Your task to perform on an android device: Search for "usb-c" on newegg, select the first entry, add it to the cart, then select checkout. Image 0: 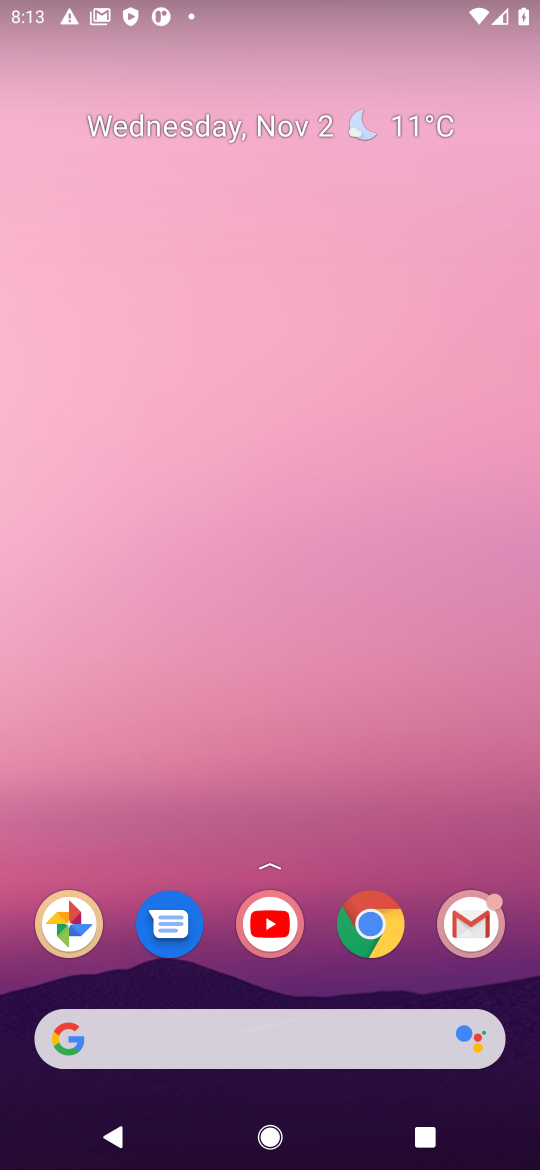
Step 0: click (367, 918)
Your task to perform on an android device: Search for "usb-c" on newegg, select the first entry, add it to the cart, then select checkout. Image 1: 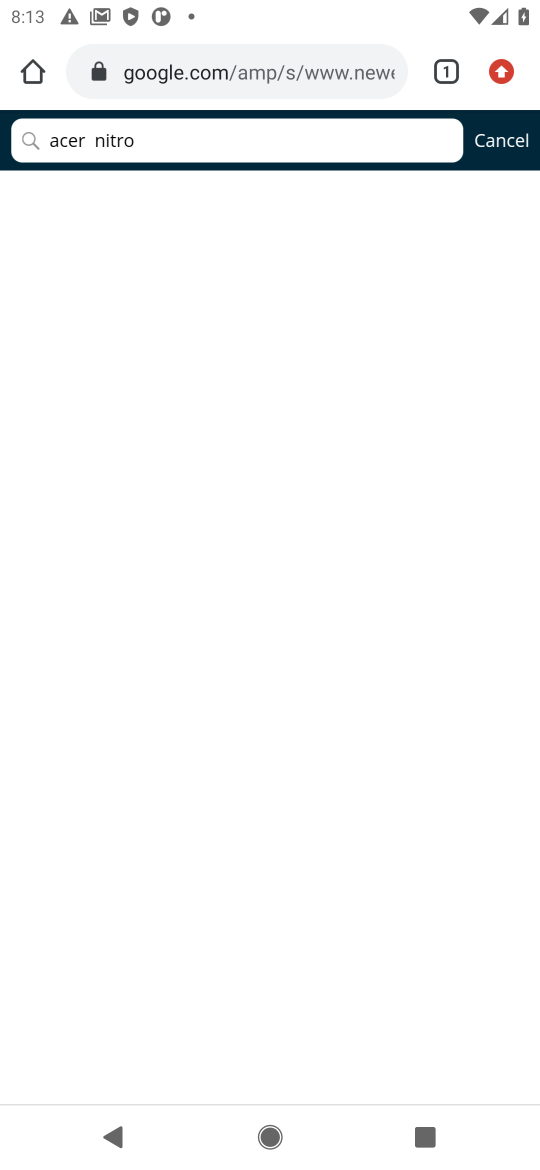
Step 1: click (194, 117)
Your task to perform on an android device: Search for "usb-c" on newegg, select the first entry, add it to the cart, then select checkout. Image 2: 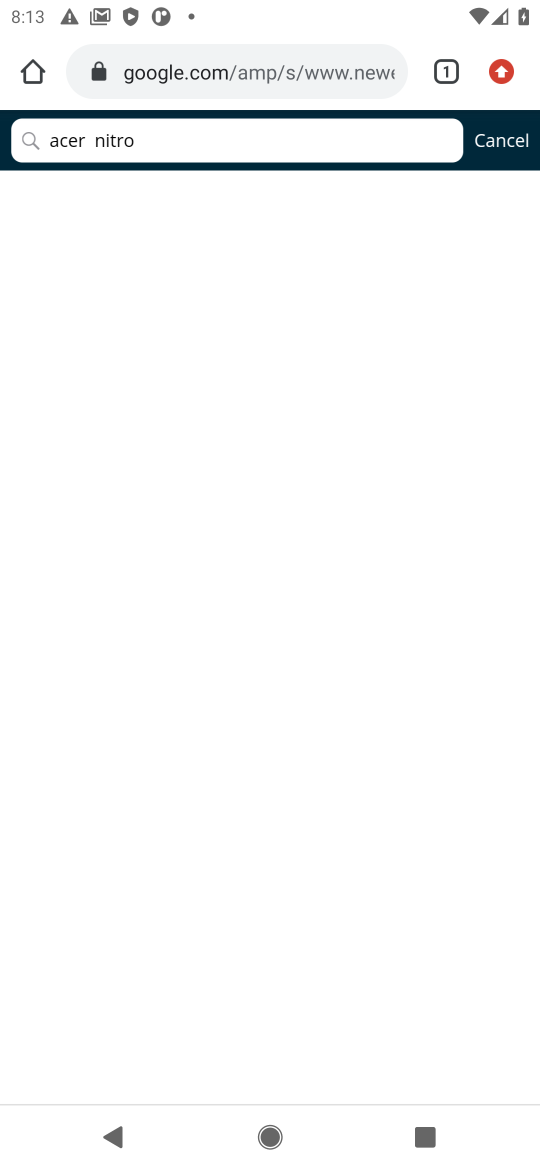
Step 2: click (202, 67)
Your task to perform on an android device: Search for "usb-c" on newegg, select the first entry, add it to the cart, then select checkout. Image 3: 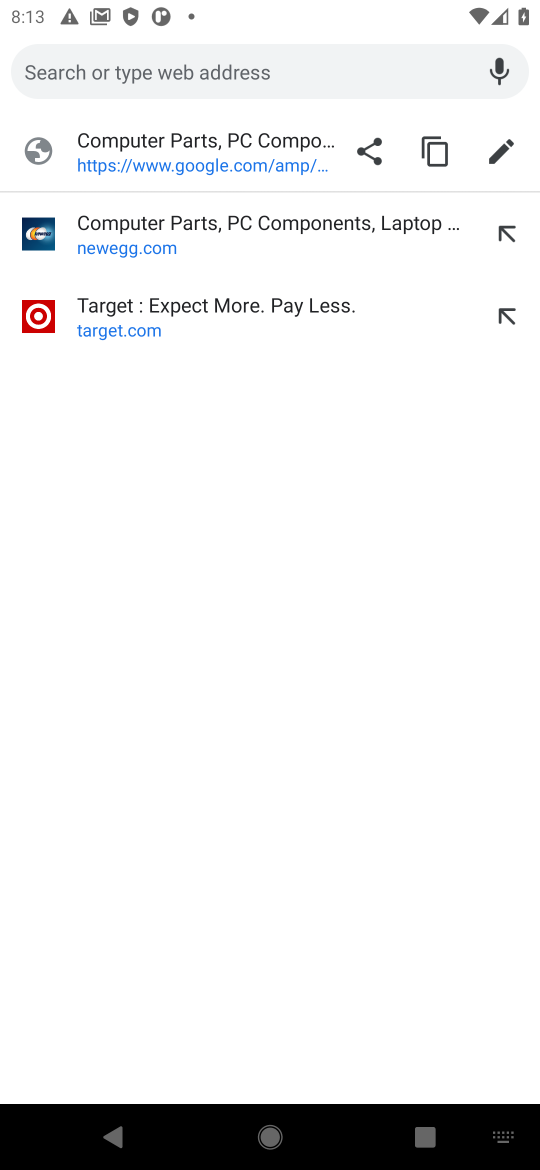
Step 3: type "newegg"
Your task to perform on an android device: Search for "usb-c" on newegg, select the first entry, add it to the cart, then select checkout. Image 4: 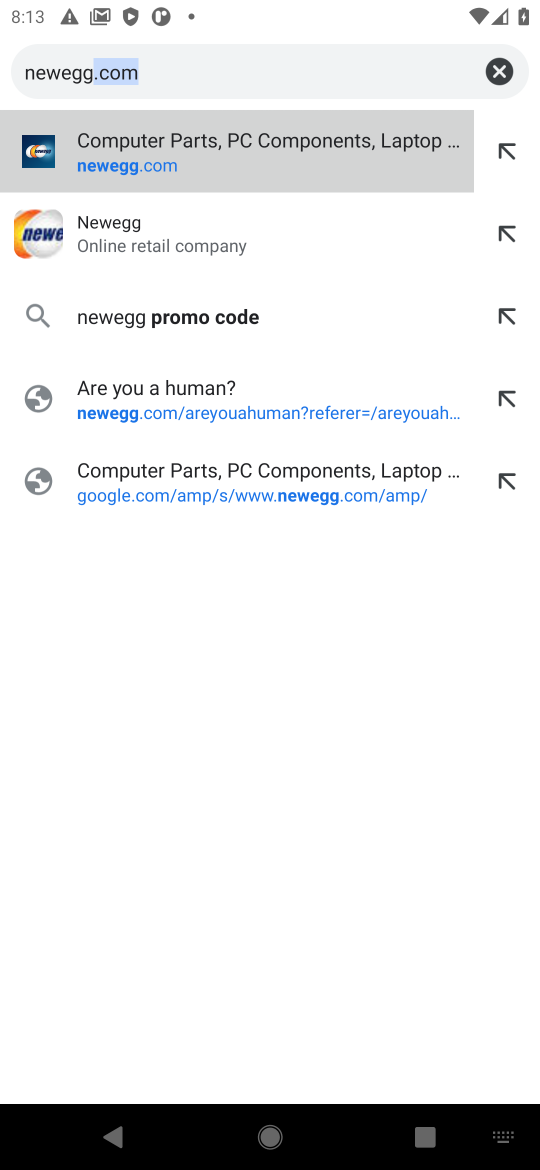
Step 4: click (87, 213)
Your task to perform on an android device: Search for "usb-c" on newegg, select the first entry, add it to the cart, then select checkout. Image 5: 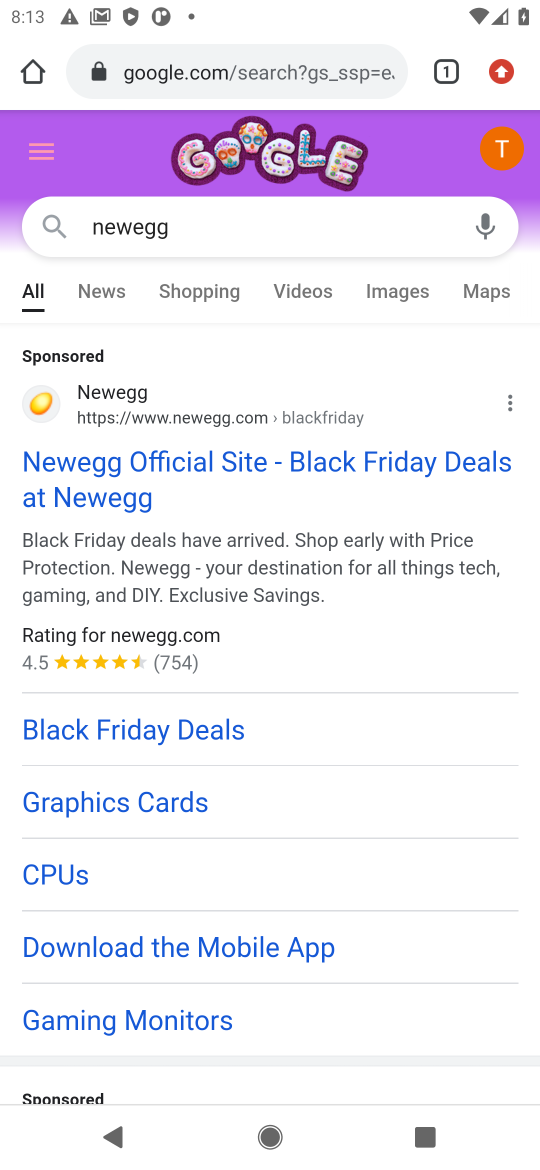
Step 5: drag from (157, 682) to (193, 164)
Your task to perform on an android device: Search for "usb-c" on newegg, select the first entry, add it to the cart, then select checkout. Image 6: 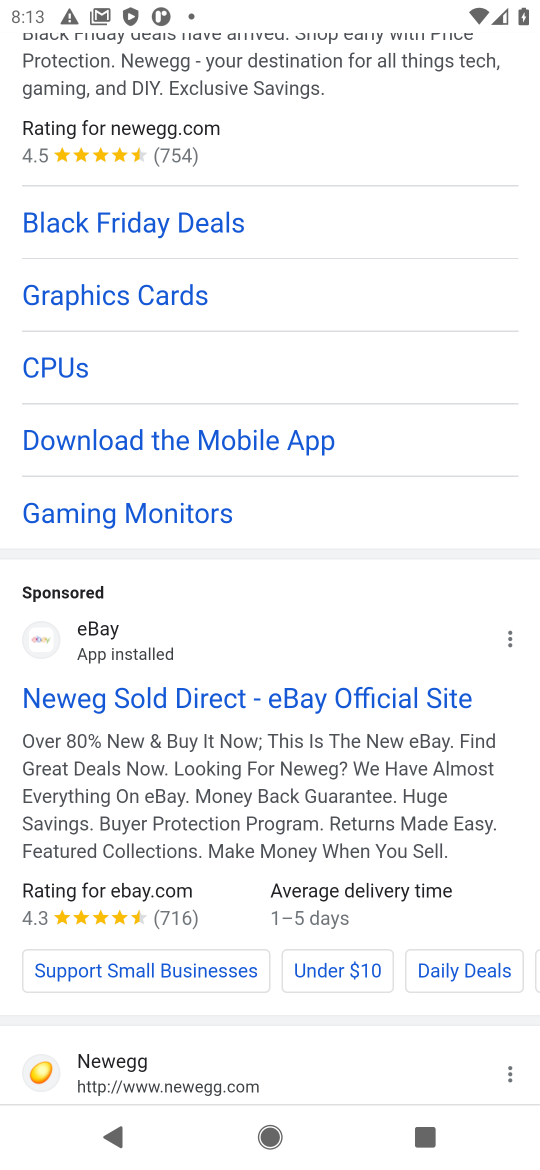
Step 6: drag from (100, 907) to (225, 332)
Your task to perform on an android device: Search for "usb-c" on newegg, select the first entry, add it to the cart, then select checkout. Image 7: 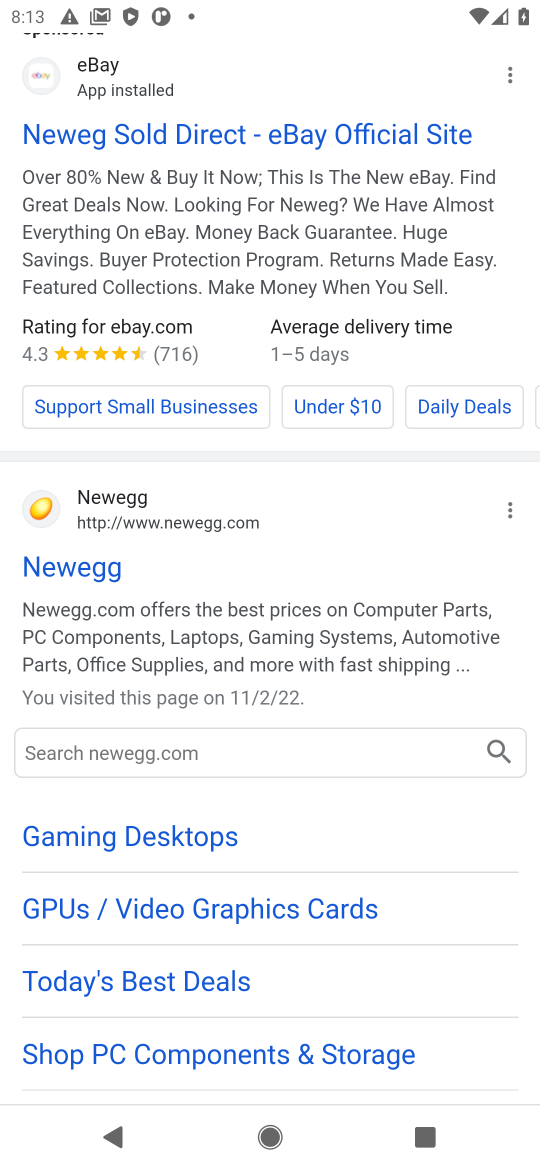
Step 7: click (52, 567)
Your task to perform on an android device: Search for "usb-c" on newegg, select the first entry, add it to the cart, then select checkout. Image 8: 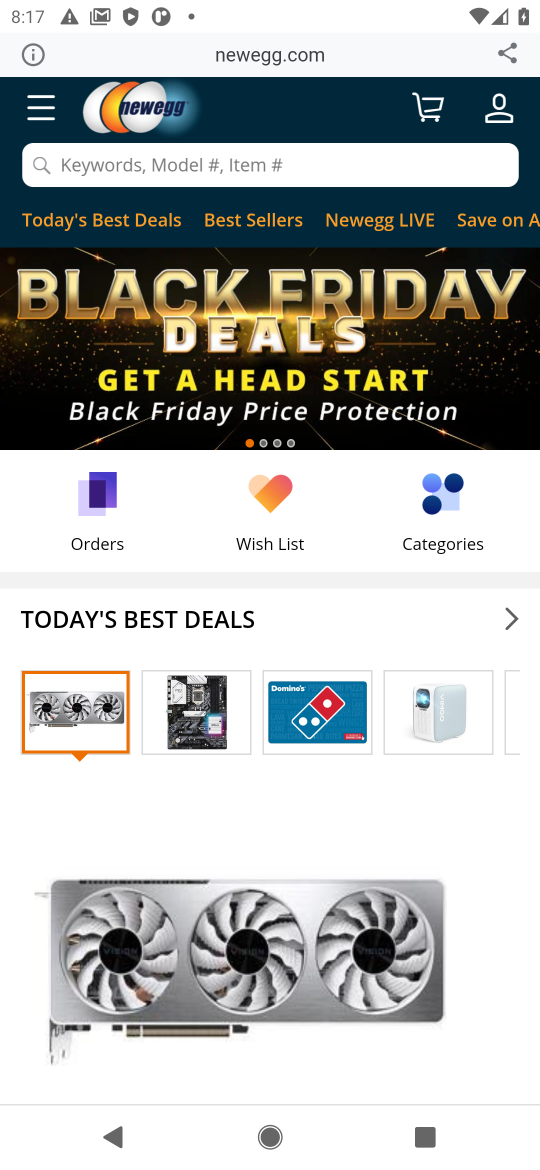
Step 8: click (222, 170)
Your task to perform on an android device: Search for "usb-c" on newegg, select the first entry, add it to the cart, then select checkout. Image 9: 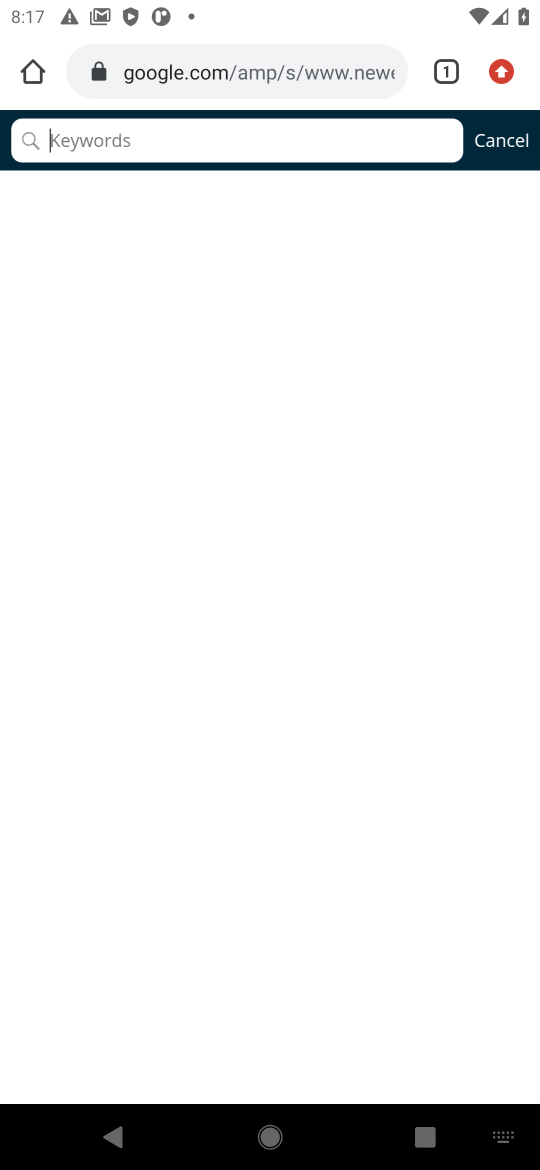
Step 9: type "usb -c "
Your task to perform on an android device: Search for "usb-c" on newegg, select the first entry, add it to the cart, then select checkout. Image 10: 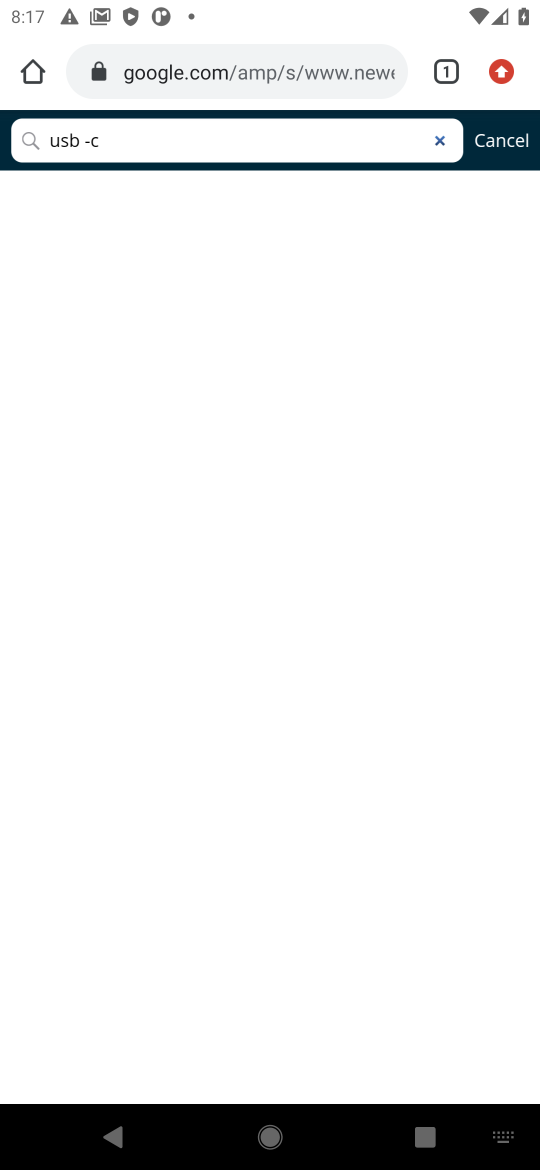
Step 10: click (127, 128)
Your task to perform on an android device: Search for "usb-c" on newegg, select the first entry, add it to the cart, then select checkout. Image 11: 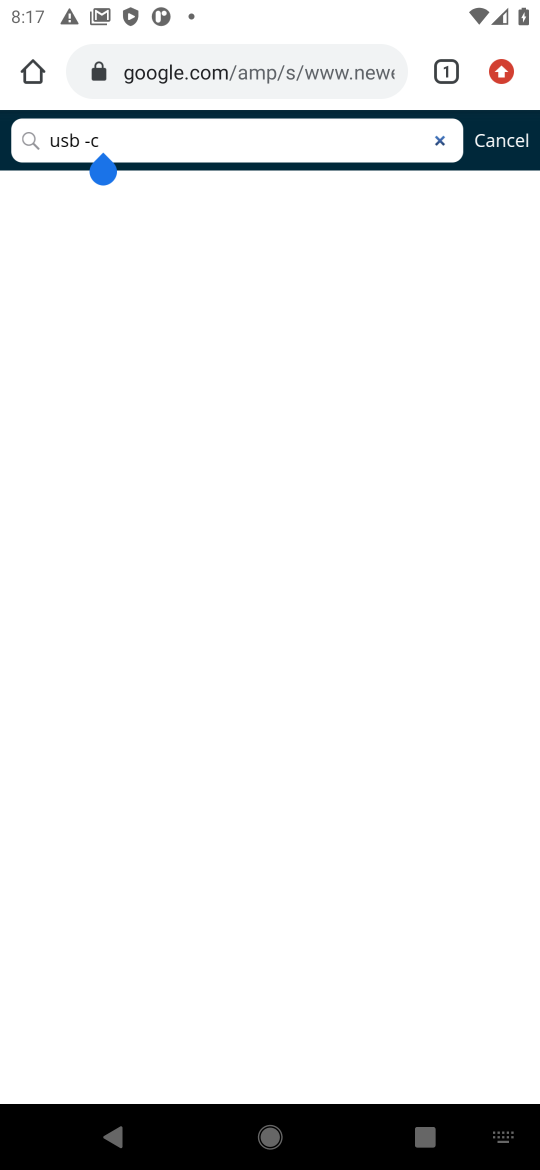
Step 11: task complete